Your task to perform on an android device: turn off improve location accuracy Image 0: 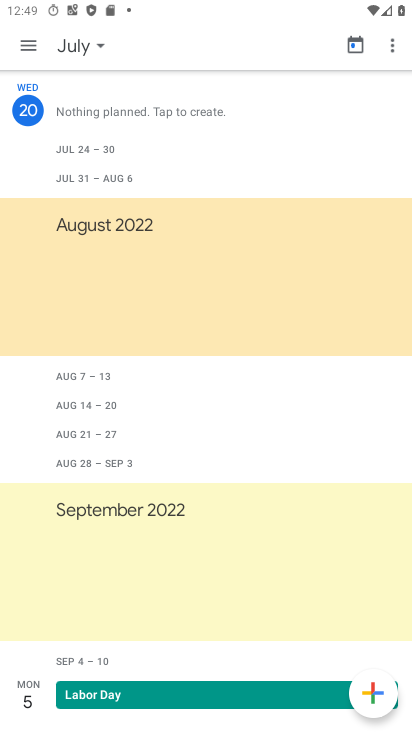
Step 0: press home button
Your task to perform on an android device: turn off improve location accuracy Image 1: 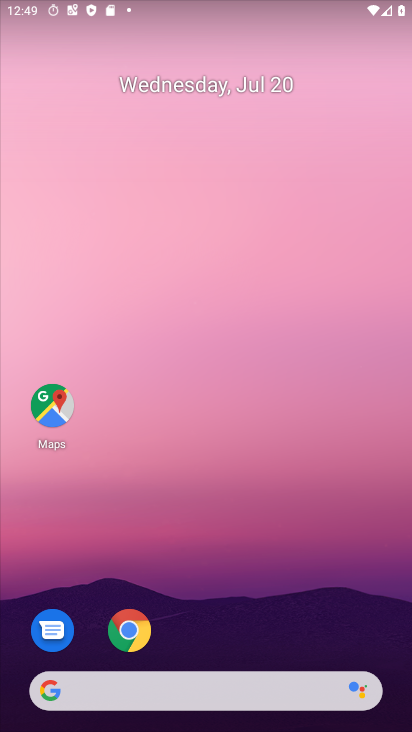
Step 1: drag from (201, 613) to (251, 248)
Your task to perform on an android device: turn off improve location accuracy Image 2: 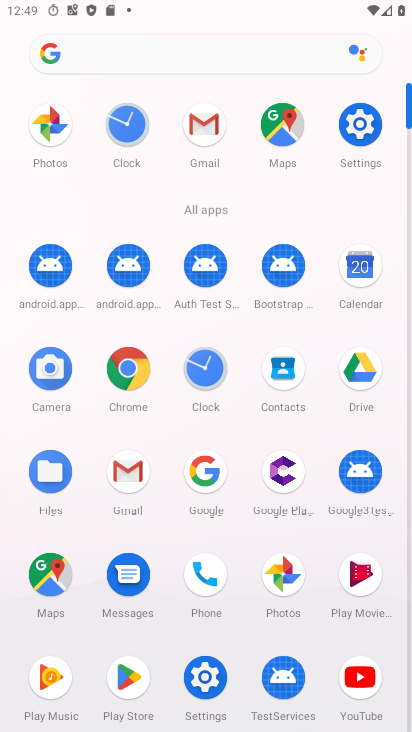
Step 2: click (372, 139)
Your task to perform on an android device: turn off improve location accuracy Image 3: 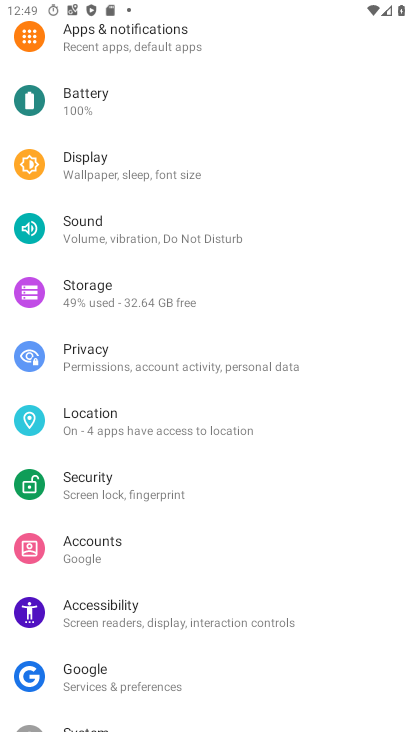
Step 3: click (89, 416)
Your task to perform on an android device: turn off improve location accuracy Image 4: 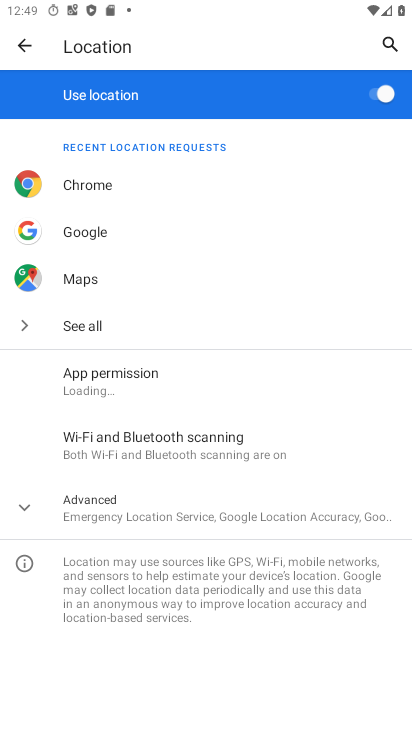
Step 4: click (150, 497)
Your task to perform on an android device: turn off improve location accuracy Image 5: 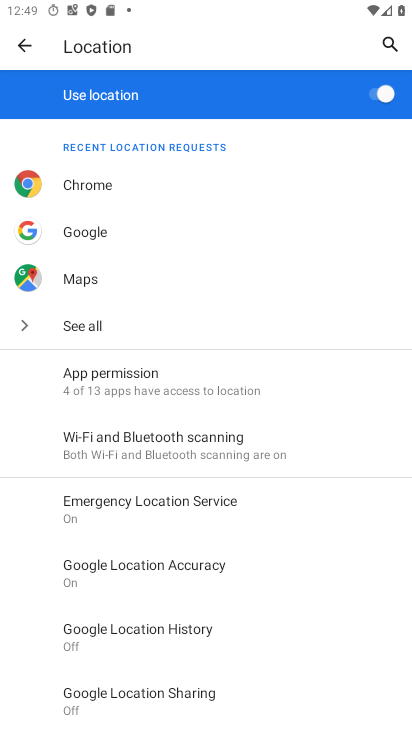
Step 5: click (190, 578)
Your task to perform on an android device: turn off improve location accuracy Image 6: 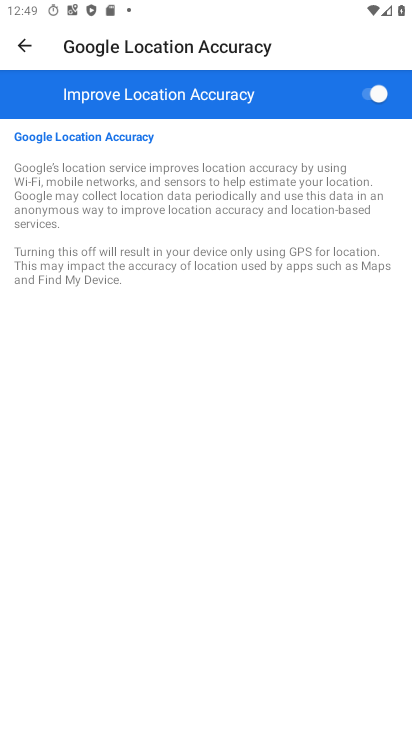
Step 6: click (373, 93)
Your task to perform on an android device: turn off improve location accuracy Image 7: 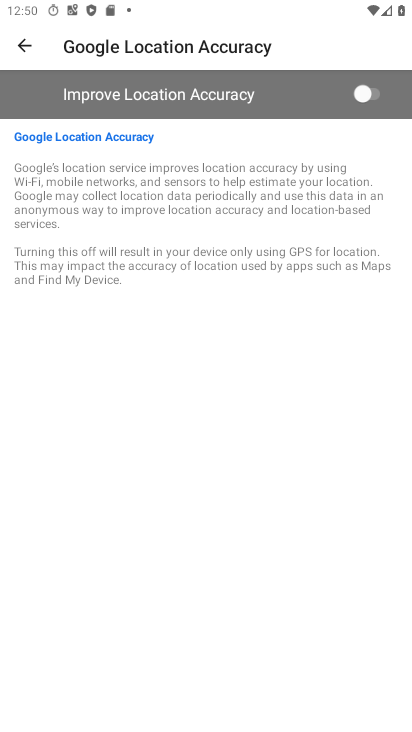
Step 7: task complete